Your task to perform on an android device: see tabs open on other devices in the chrome app Image 0: 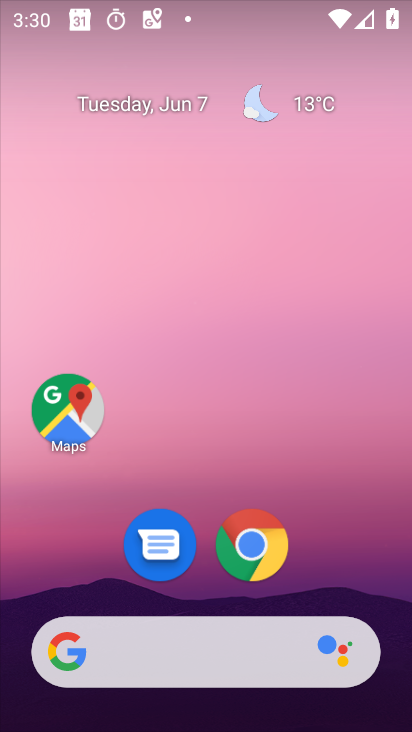
Step 0: task impossible